Your task to perform on an android device: Open notification settings Image 0: 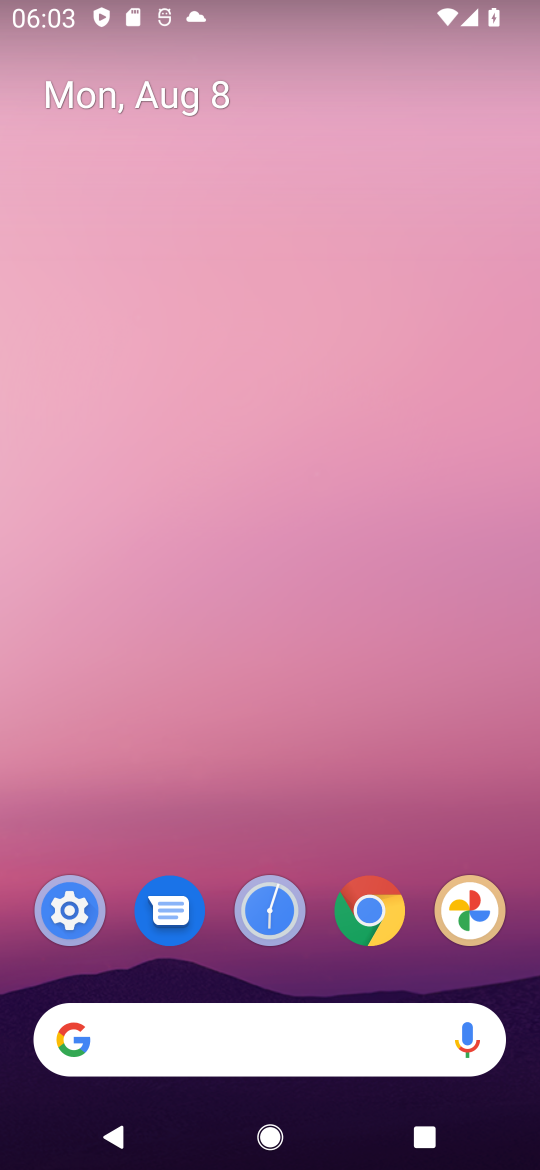
Step 0: drag from (228, 1034) to (288, 419)
Your task to perform on an android device: Open notification settings Image 1: 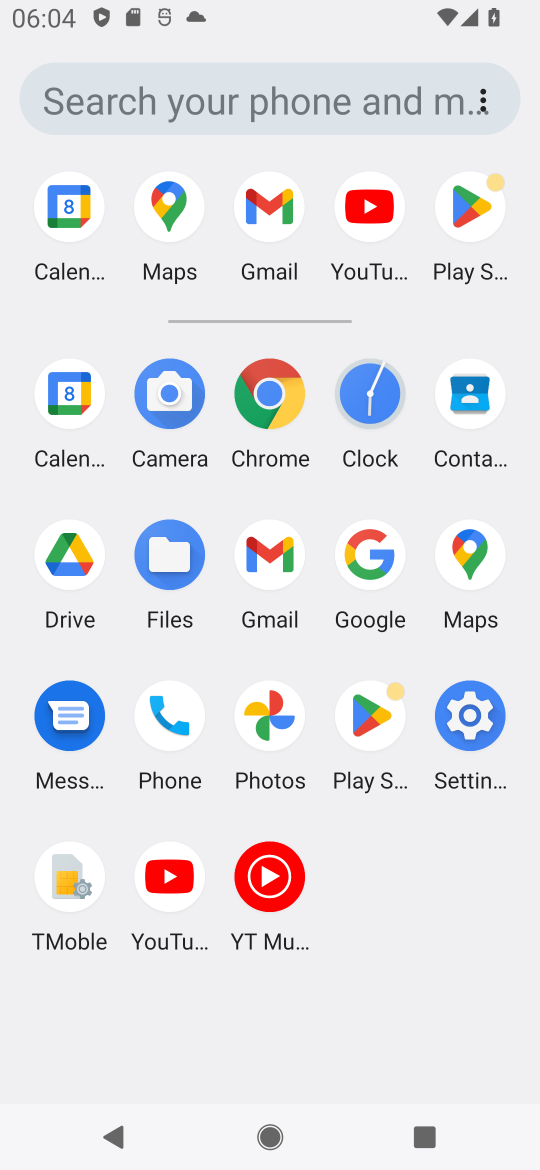
Step 1: click (470, 714)
Your task to perform on an android device: Open notification settings Image 2: 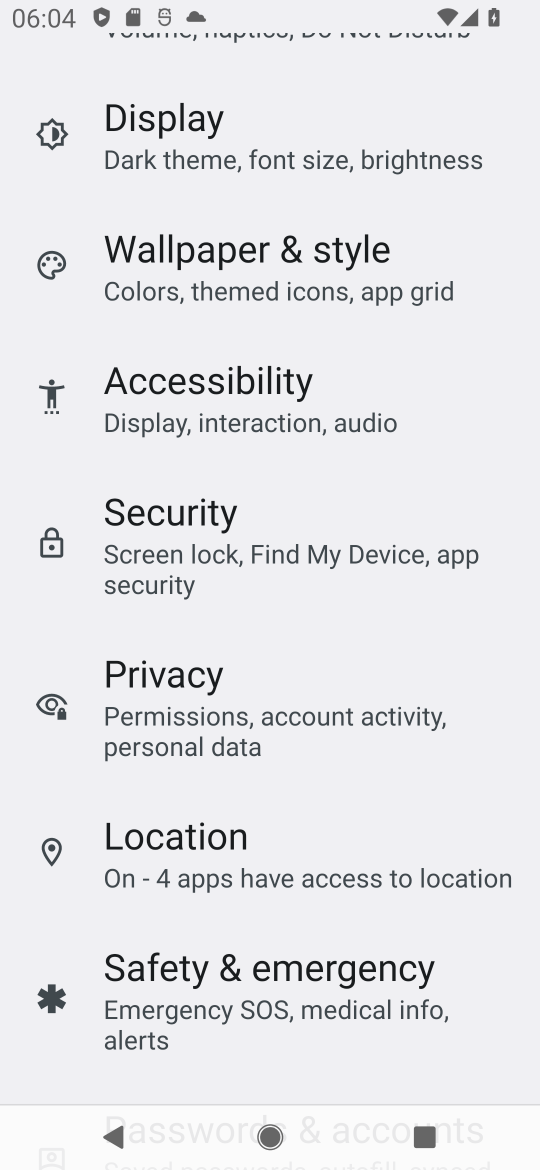
Step 2: drag from (340, 215) to (313, 399)
Your task to perform on an android device: Open notification settings Image 3: 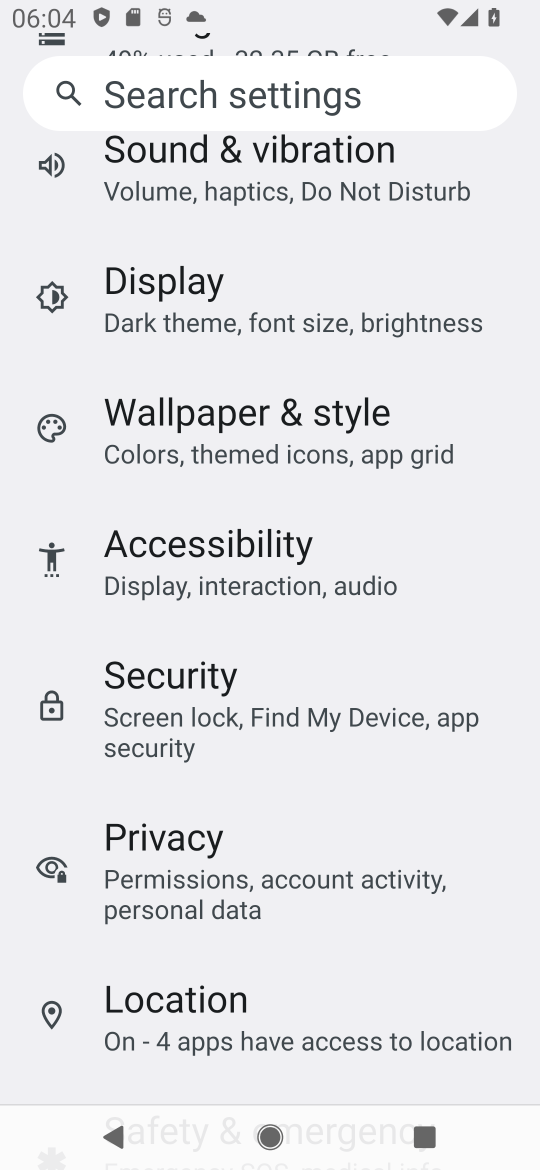
Step 3: drag from (259, 231) to (342, 486)
Your task to perform on an android device: Open notification settings Image 4: 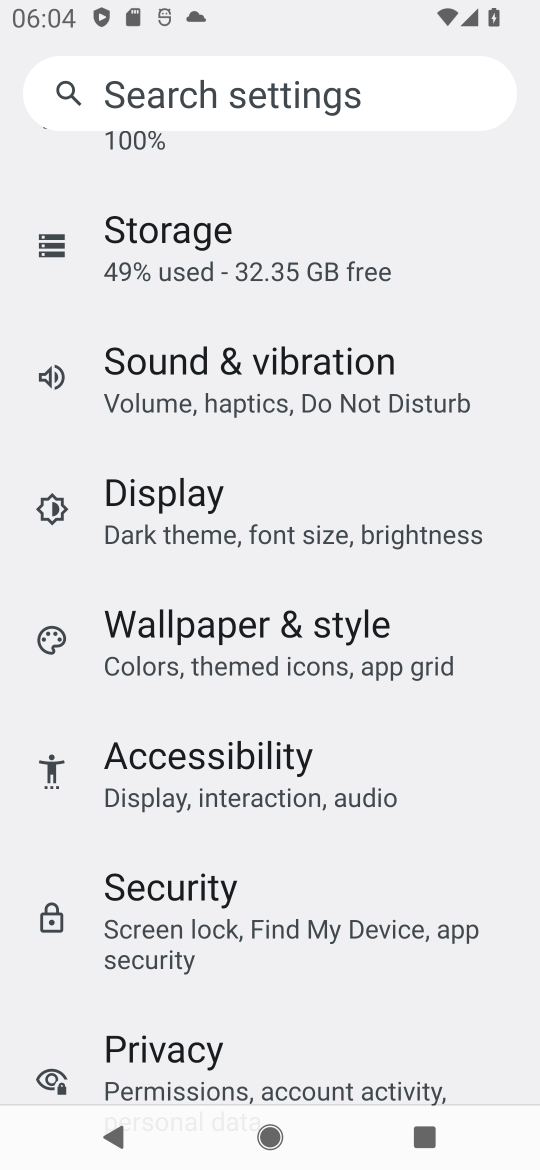
Step 4: drag from (268, 182) to (274, 410)
Your task to perform on an android device: Open notification settings Image 5: 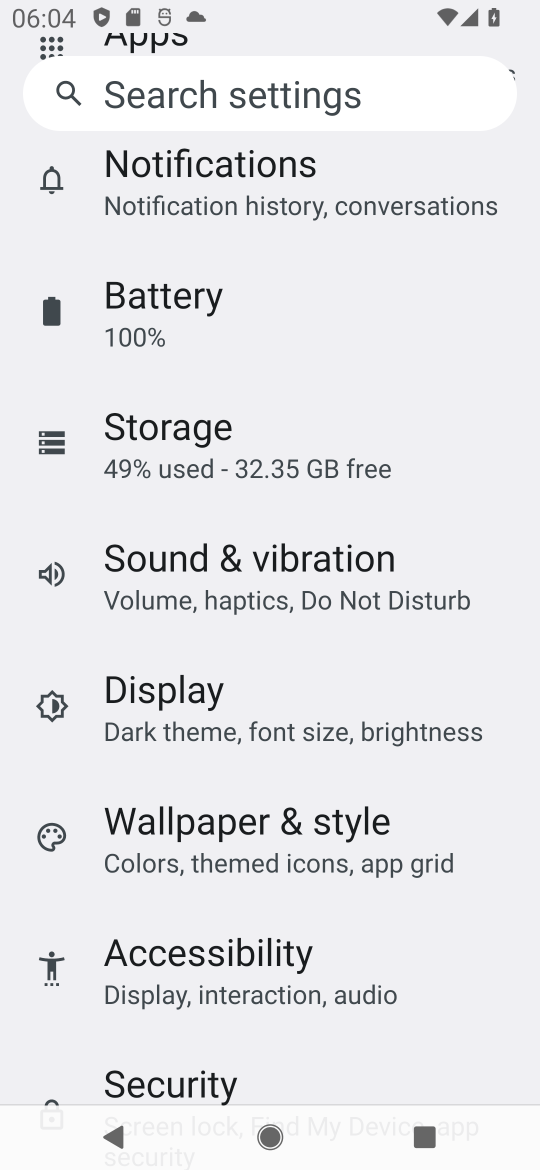
Step 5: drag from (229, 256) to (282, 467)
Your task to perform on an android device: Open notification settings Image 6: 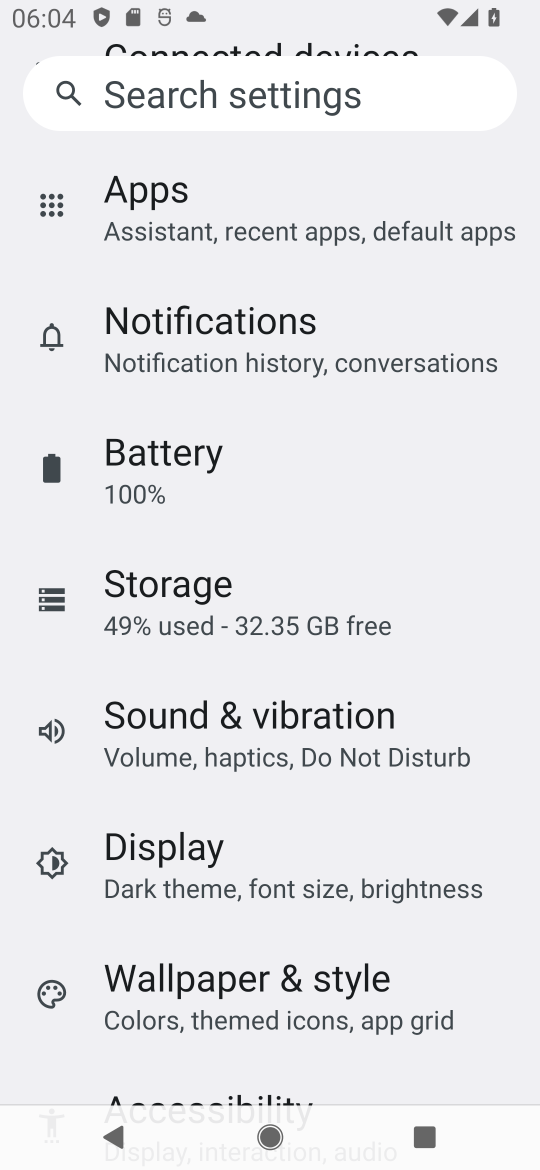
Step 6: click (233, 334)
Your task to perform on an android device: Open notification settings Image 7: 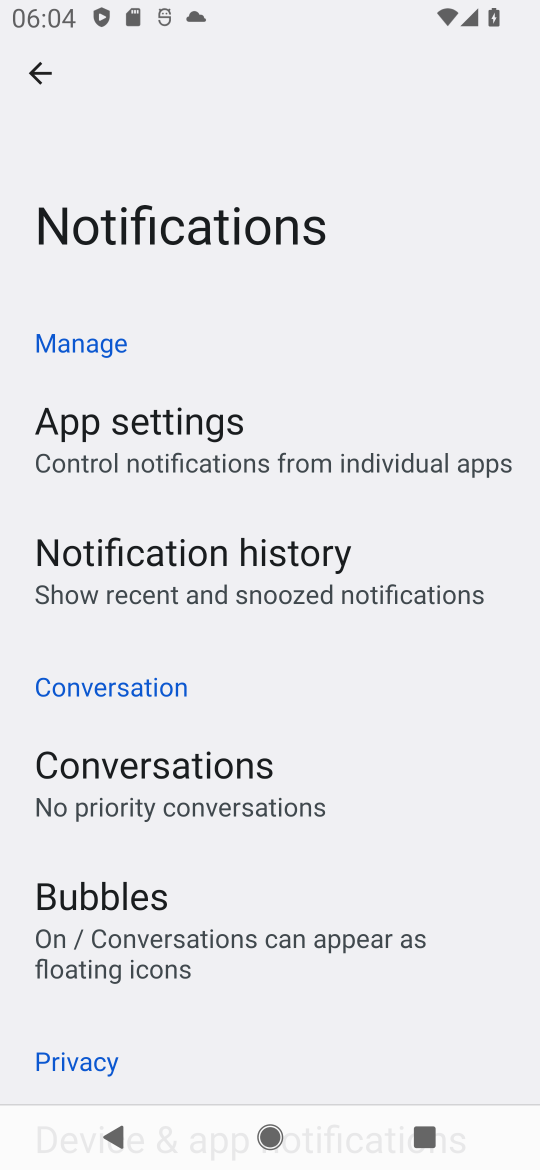
Step 7: task complete